Your task to perform on an android device: turn off location Image 0: 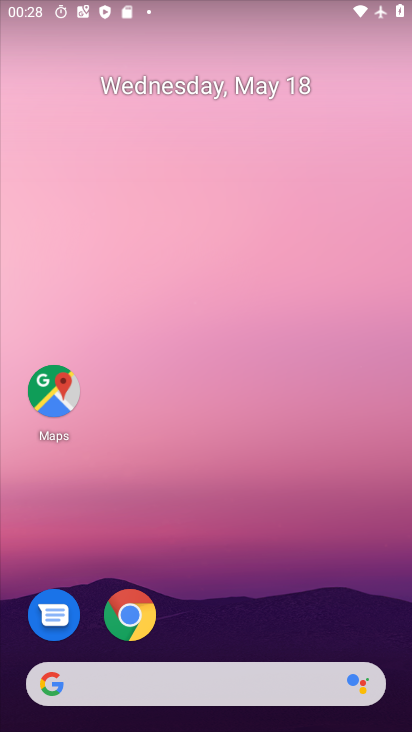
Step 0: drag from (258, 647) to (239, 271)
Your task to perform on an android device: turn off location Image 1: 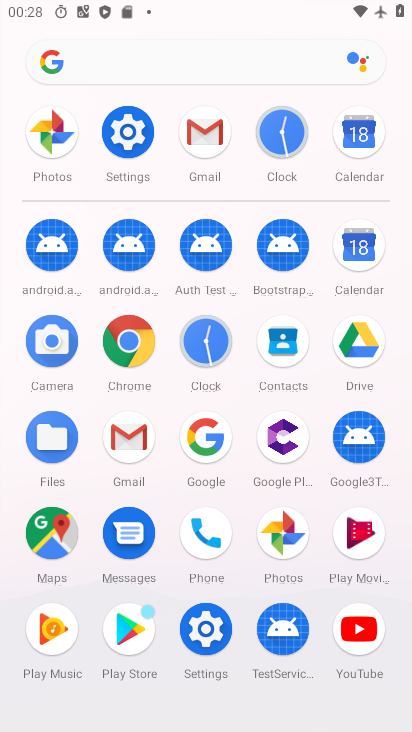
Step 1: click (121, 138)
Your task to perform on an android device: turn off location Image 2: 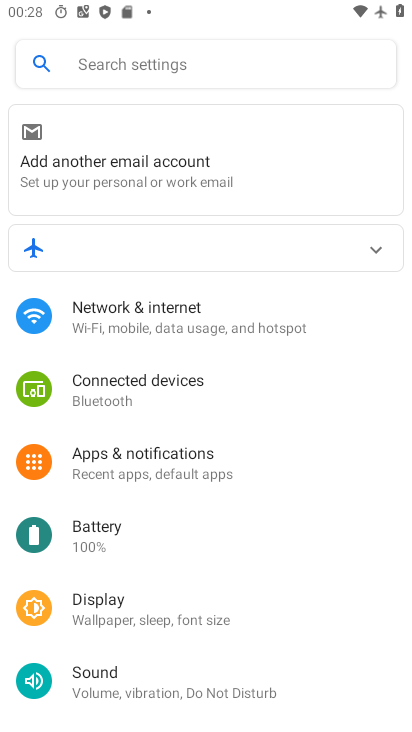
Step 2: drag from (181, 592) to (187, 265)
Your task to perform on an android device: turn off location Image 3: 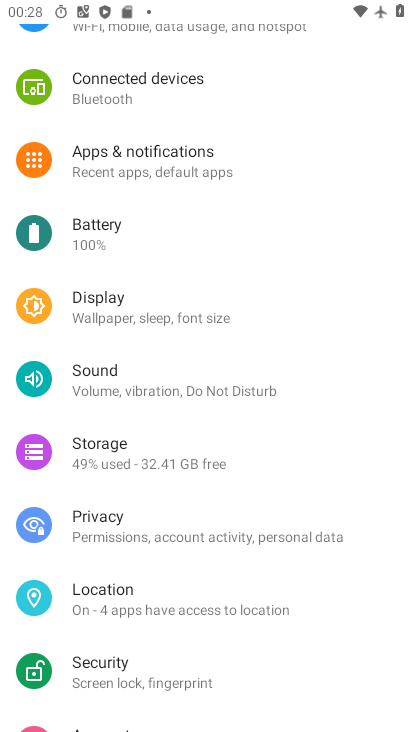
Step 3: click (137, 593)
Your task to perform on an android device: turn off location Image 4: 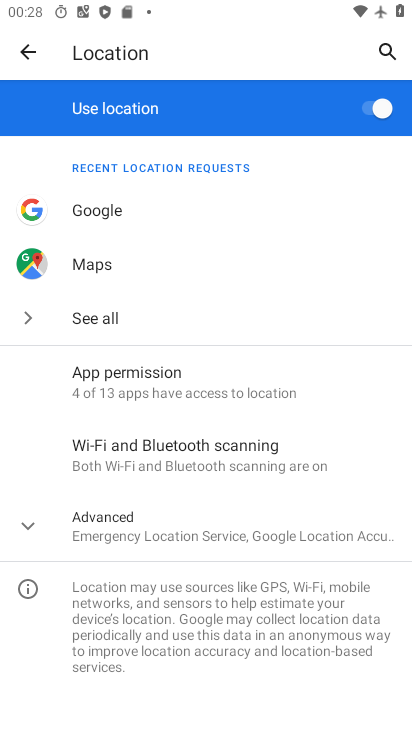
Step 4: click (359, 109)
Your task to perform on an android device: turn off location Image 5: 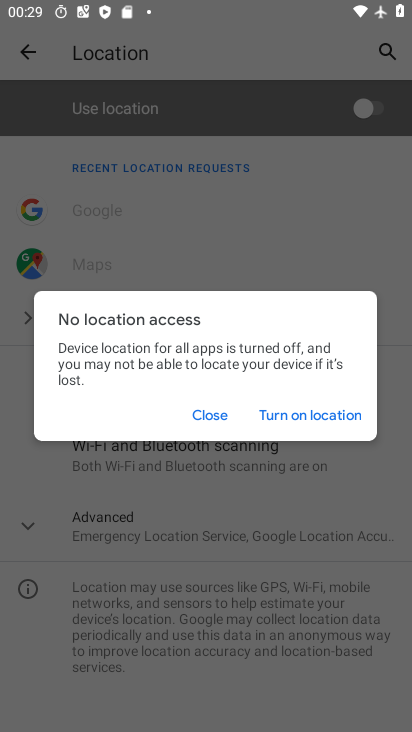
Step 5: click (203, 418)
Your task to perform on an android device: turn off location Image 6: 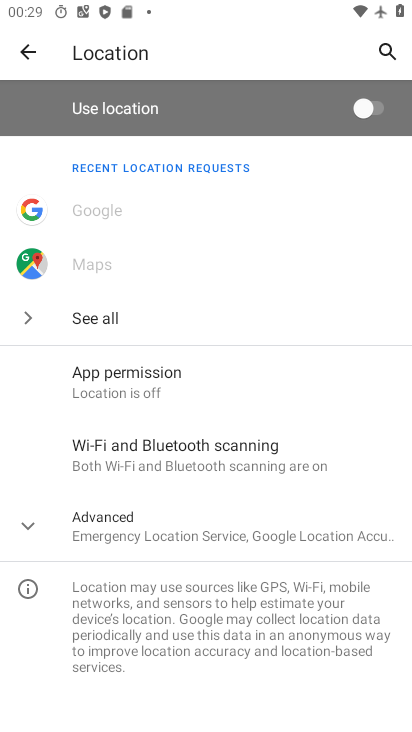
Step 6: task complete